Your task to perform on an android device: check data usage Image 0: 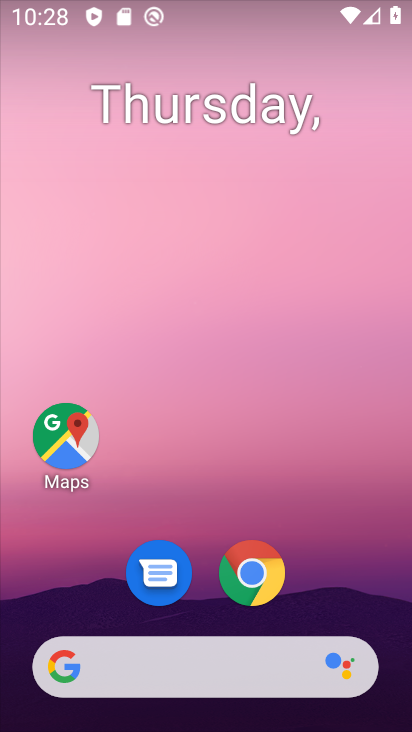
Step 0: drag from (354, 559) to (320, 107)
Your task to perform on an android device: check data usage Image 1: 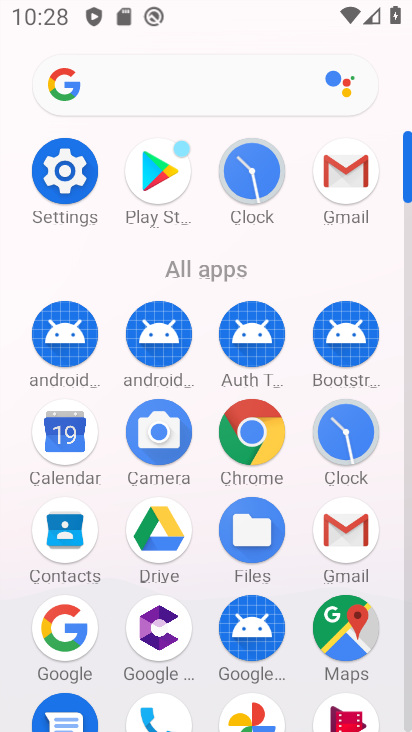
Step 1: click (57, 162)
Your task to perform on an android device: check data usage Image 2: 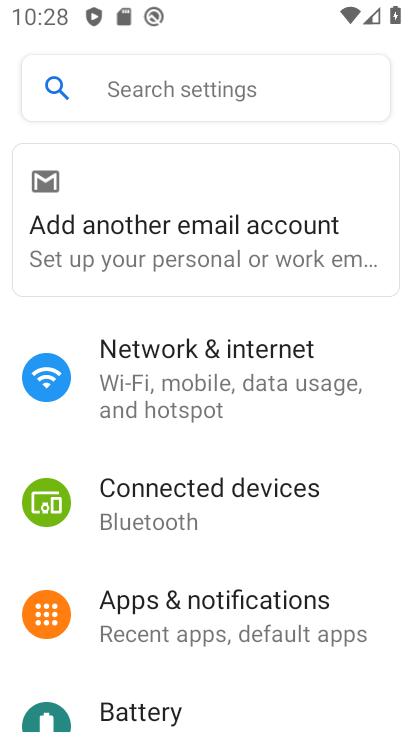
Step 2: click (225, 387)
Your task to perform on an android device: check data usage Image 3: 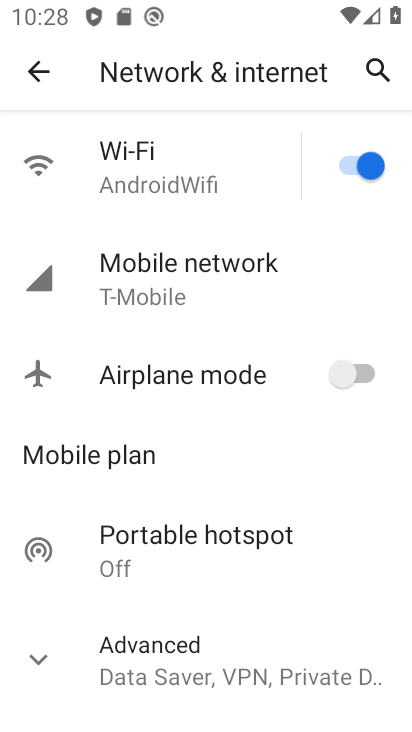
Step 3: click (199, 269)
Your task to perform on an android device: check data usage Image 4: 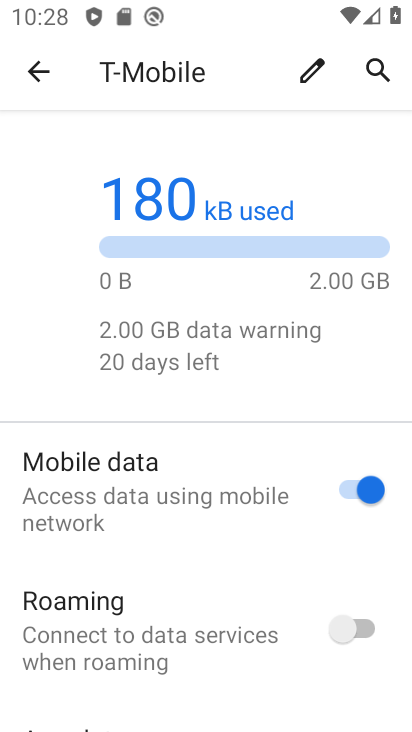
Step 4: task complete